Your task to perform on an android device: open chrome and create a bookmark for the current page Image 0: 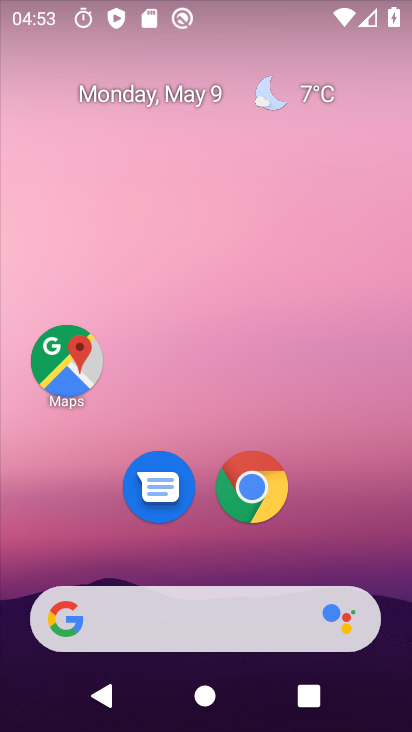
Step 0: click (252, 494)
Your task to perform on an android device: open chrome and create a bookmark for the current page Image 1: 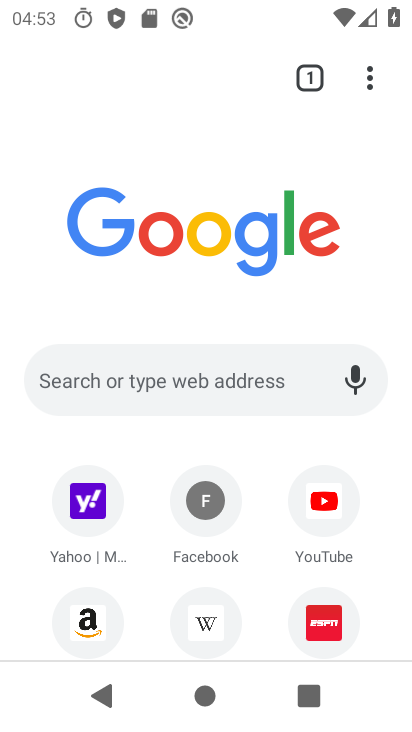
Step 1: click (371, 84)
Your task to perform on an android device: open chrome and create a bookmark for the current page Image 2: 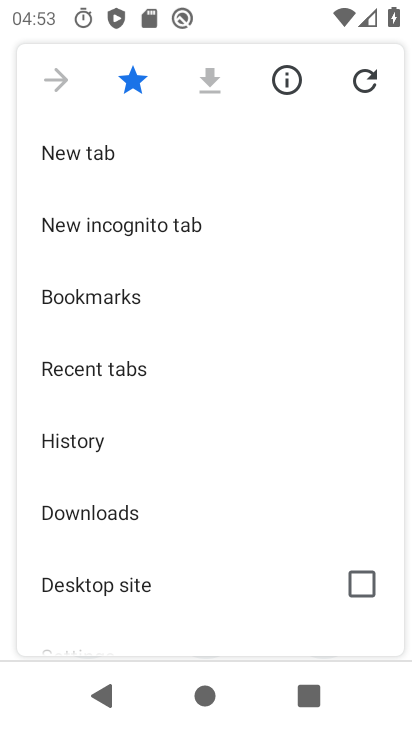
Step 2: click (137, 78)
Your task to perform on an android device: open chrome and create a bookmark for the current page Image 3: 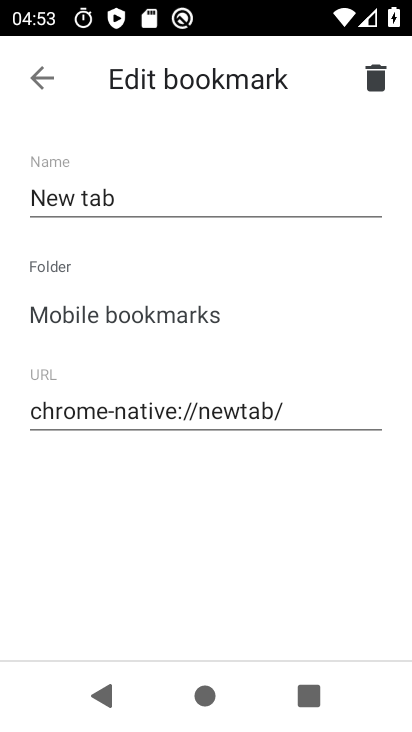
Step 3: task complete